Your task to perform on an android device: change notifications settings Image 0: 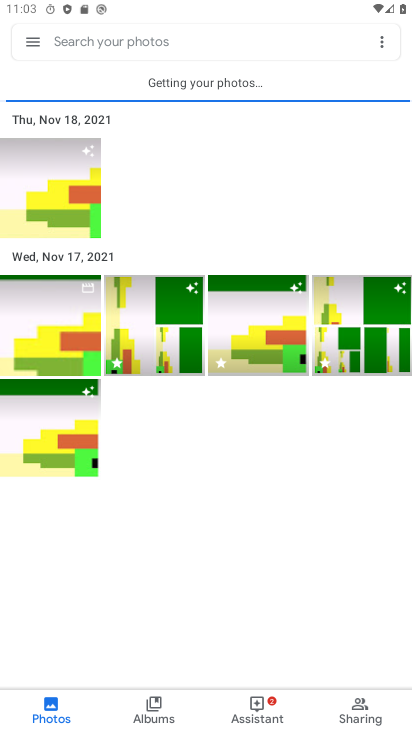
Step 0: press home button
Your task to perform on an android device: change notifications settings Image 1: 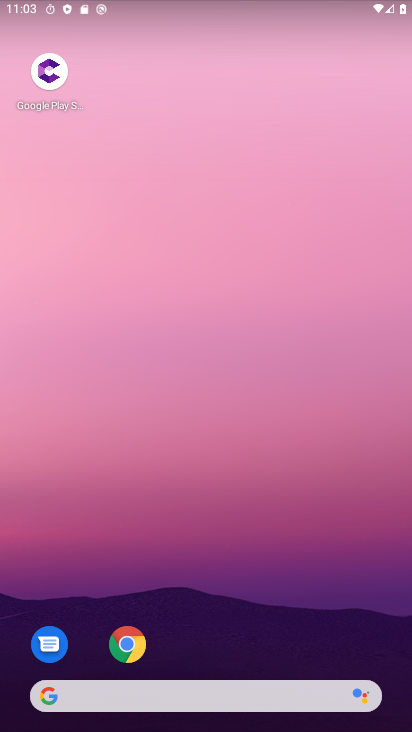
Step 1: drag from (98, 729) to (212, 72)
Your task to perform on an android device: change notifications settings Image 2: 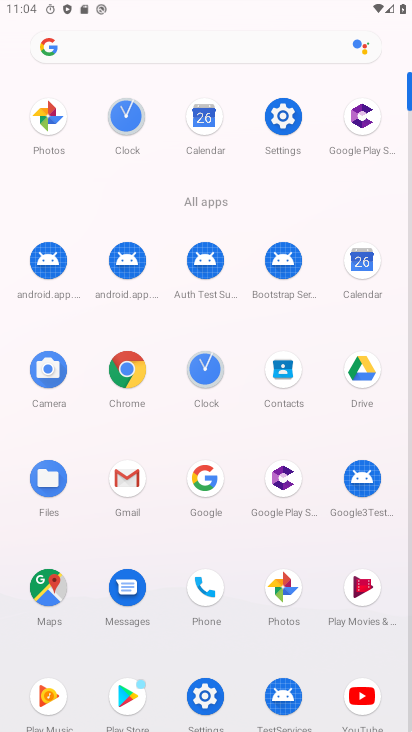
Step 2: click (288, 119)
Your task to perform on an android device: change notifications settings Image 3: 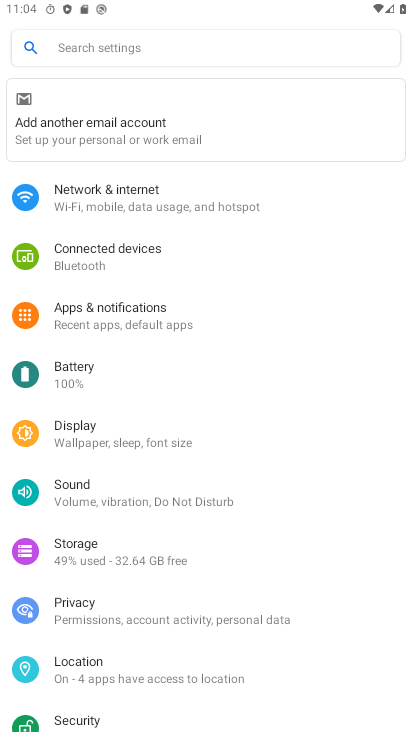
Step 3: click (166, 332)
Your task to perform on an android device: change notifications settings Image 4: 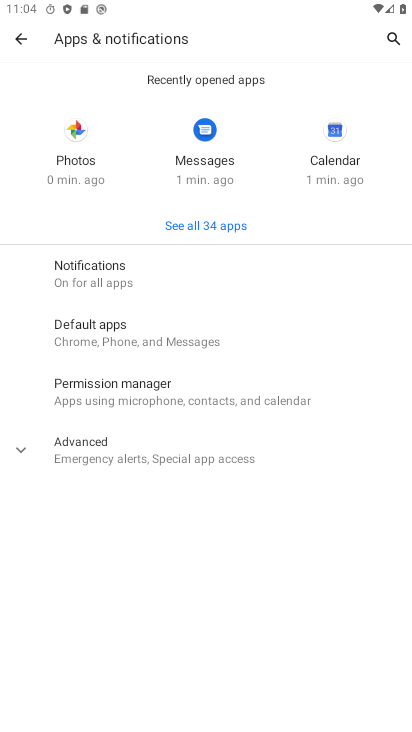
Step 4: click (113, 288)
Your task to perform on an android device: change notifications settings Image 5: 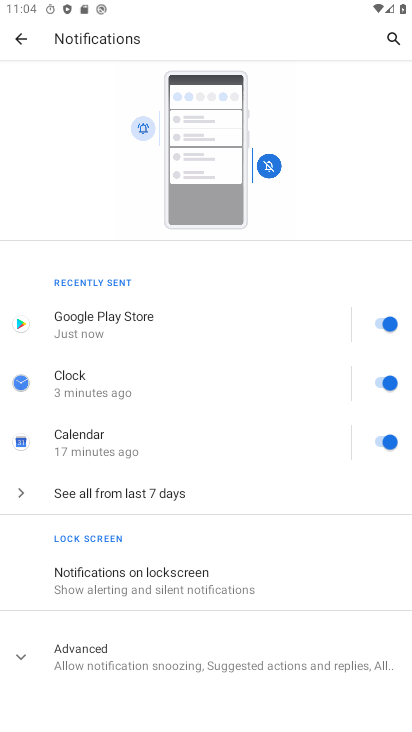
Step 5: click (182, 653)
Your task to perform on an android device: change notifications settings Image 6: 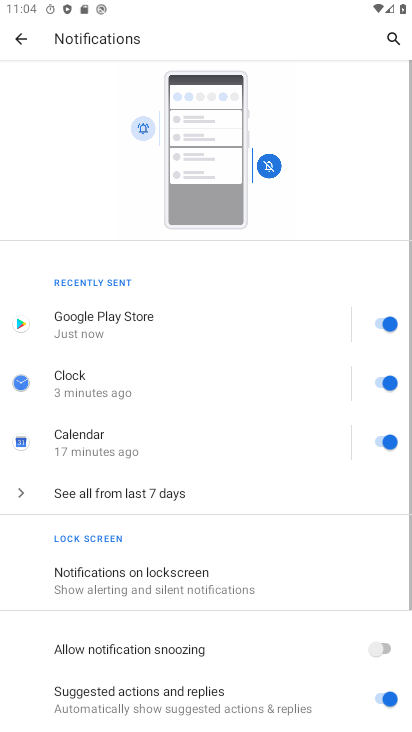
Step 6: drag from (186, 640) to (197, 267)
Your task to perform on an android device: change notifications settings Image 7: 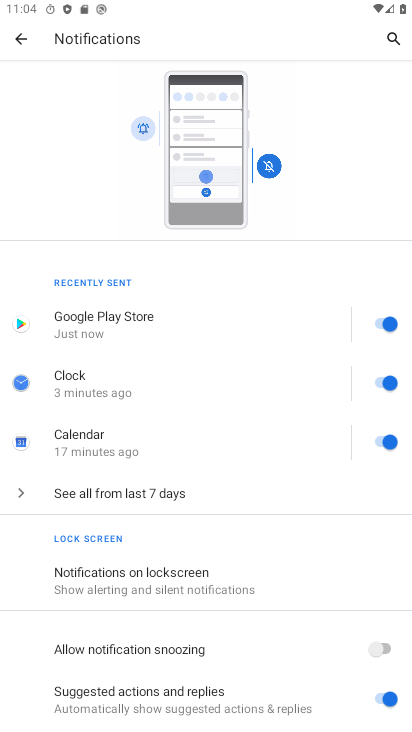
Step 7: drag from (299, 684) to (248, 403)
Your task to perform on an android device: change notifications settings Image 8: 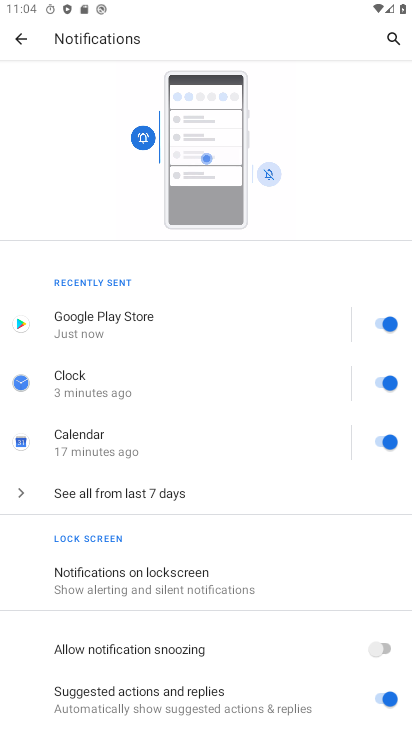
Step 8: click (385, 647)
Your task to perform on an android device: change notifications settings Image 9: 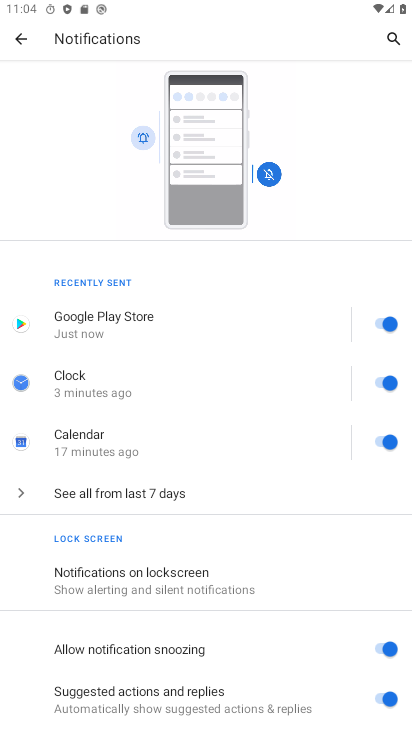
Step 9: task complete